Your task to perform on an android device: change notification settings in the gmail app Image 0: 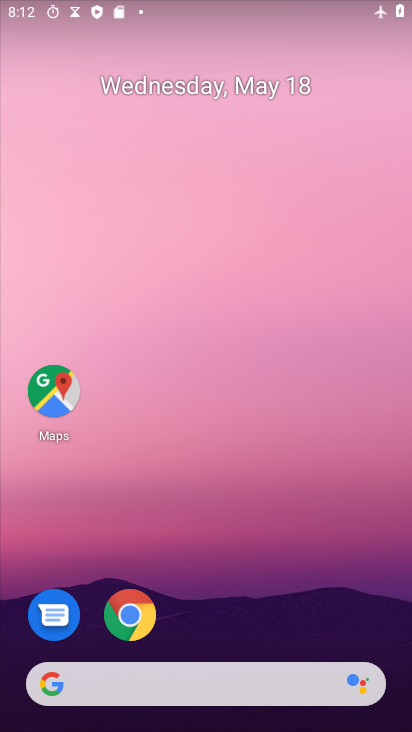
Step 0: drag from (225, 599) to (232, 167)
Your task to perform on an android device: change notification settings in the gmail app Image 1: 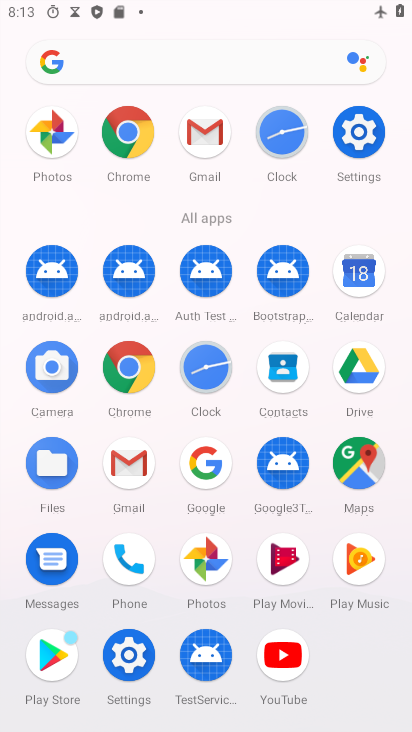
Step 1: click (207, 140)
Your task to perform on an android device: change notification settings in the gmail app Image 2: 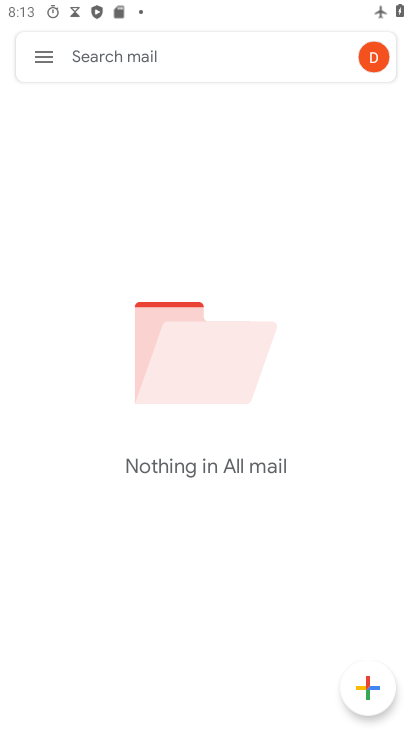
Step 2: click (52, 53)
Your task to perform on an android device: change notification settings in the gmail app Image 3: 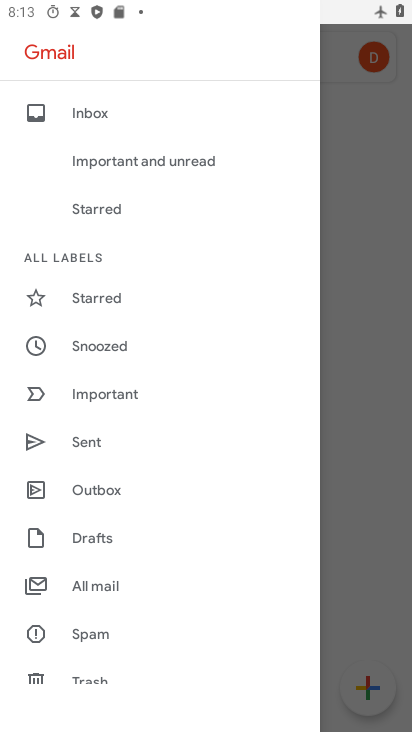
Step 3: drag from (184, 594) to (238, 307)
Your task to perform on an android device: change notification settings in the gmail app Image 4: 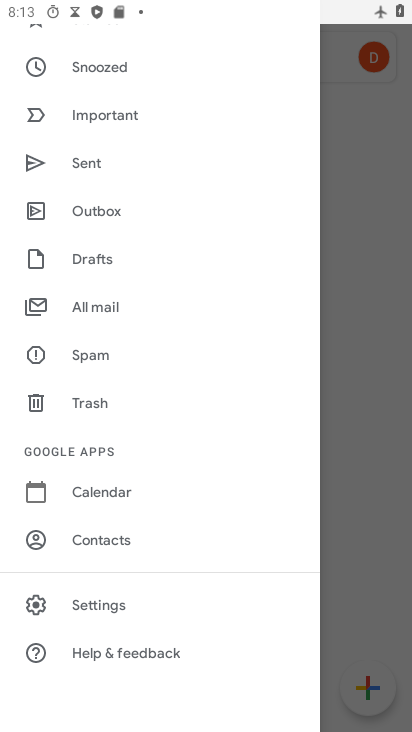
Step 4: click (119, 600)
Your task to perform on an android device: change notification settings in the gmail app Image 5: 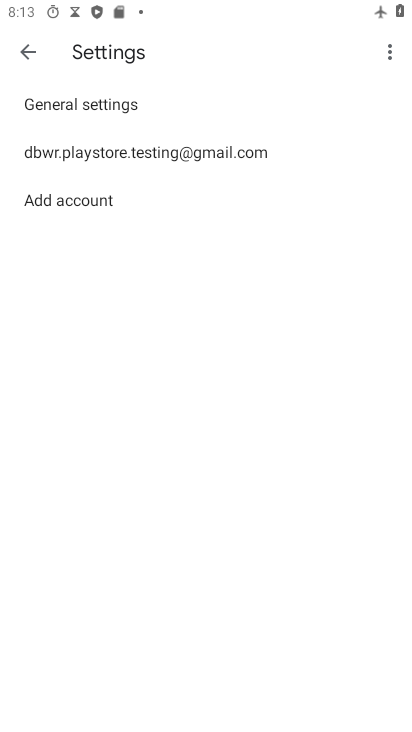
Step 5: click (102, 108)
Your task to perform on an android device: change notification settings in the gmail app Image 6: 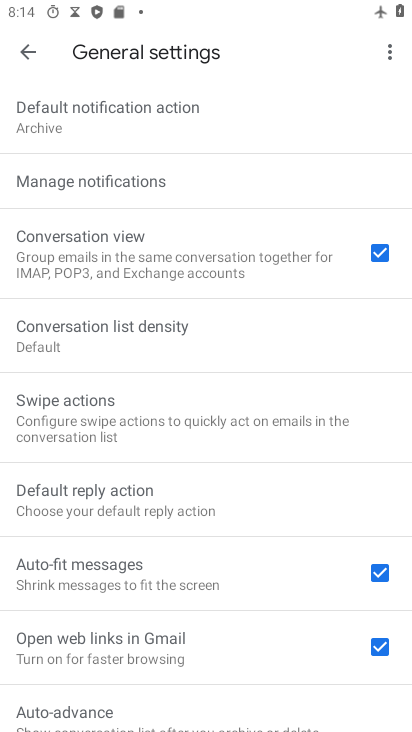
Step 6: click (131, 185)
Your task to perform on an android device: change notification settings in the gmail app Image 7: 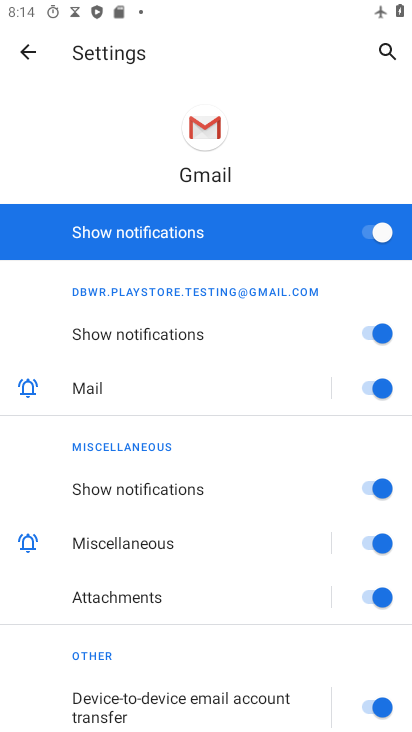
Step 7: click (378, 232)
Your task to perform on an android device: change notification settings in the gmail app Image 8: 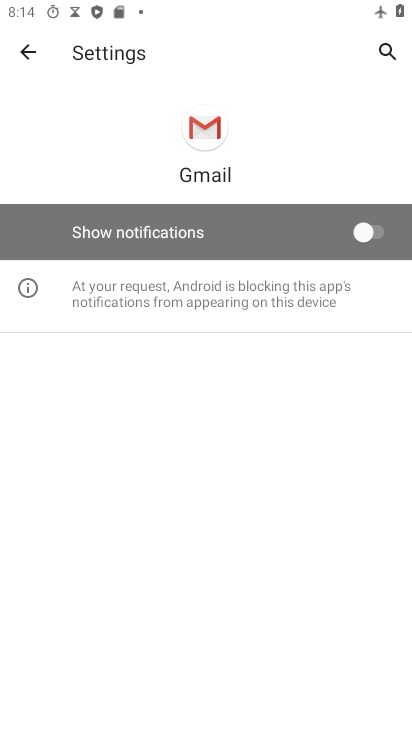
Step 8: task complete